Your task to perform on an android device: turn off picture-in-picture Image 0: 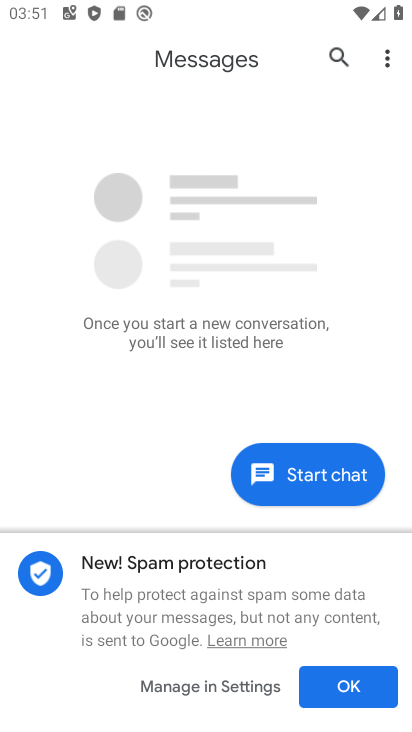
Step 0: press home button
Your task to perform on an android device: turn off picture-in-picture Image 1: 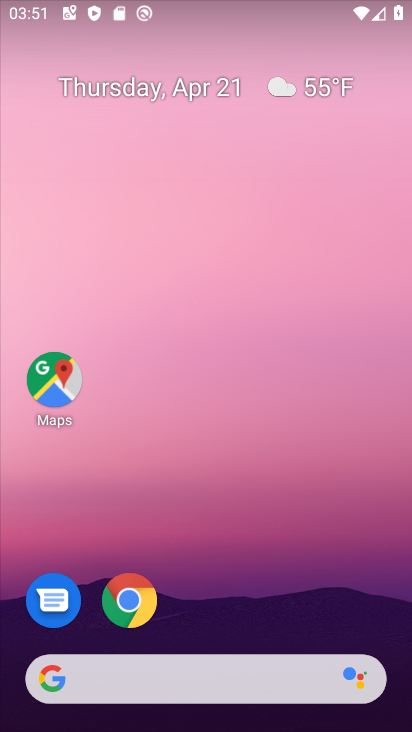
Step 1: click (128, 600)
Your task to perform on an android device: turn off picture-in-picture Image 2: 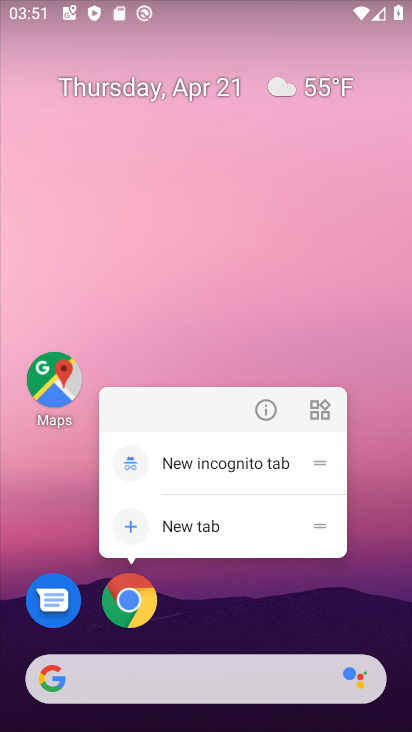
Step 2: click (264, 410)
Your task to perform on an android device: turn off picture-in-picture Image 3: 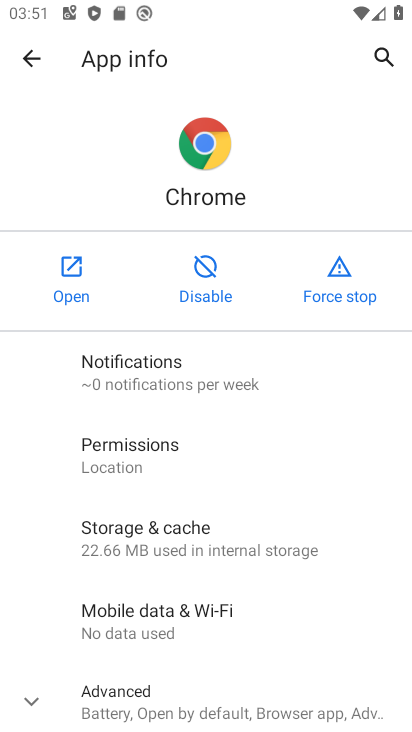
Step 3: drag from (232, 567) to (224, 405)
Your task to perform on an android device: turn off picture-in-picture Image 4: 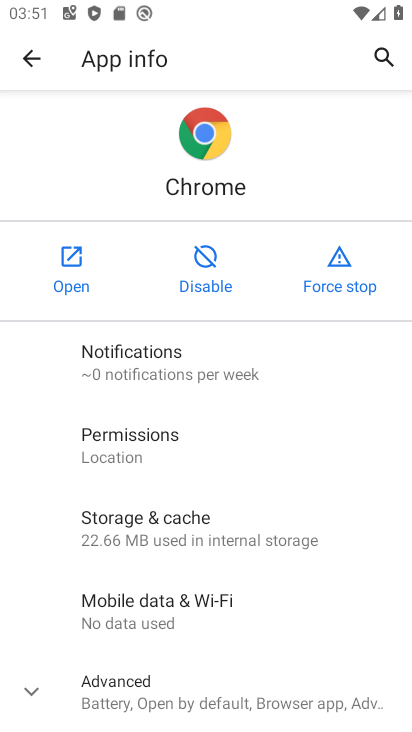
Step 4: click (74, 684)
Your task to perform on an android device: turn off picture-in-picture Image 5: 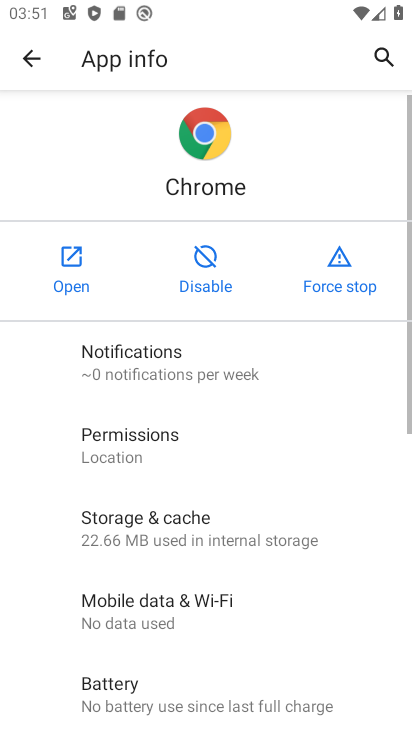
Step 5: drag from (152, 664) to (163, 499)
Your task to perform on an android device: turn off picture-in-picture Image 6: 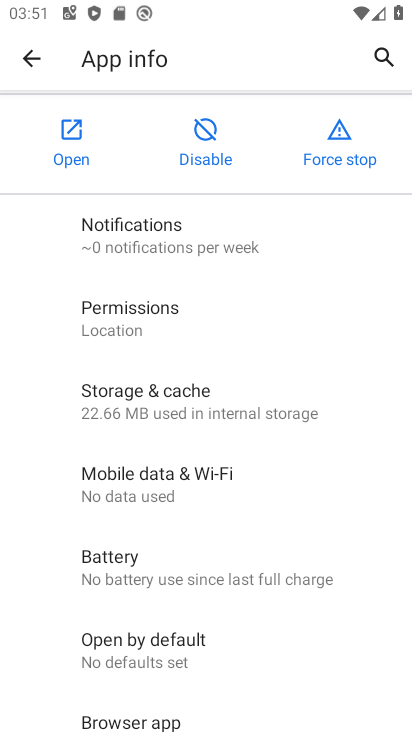
Step 6: drag from (216, 664) to (212, 479)
Your task to perform on an android device: turn off picture-in-picture Image 7: 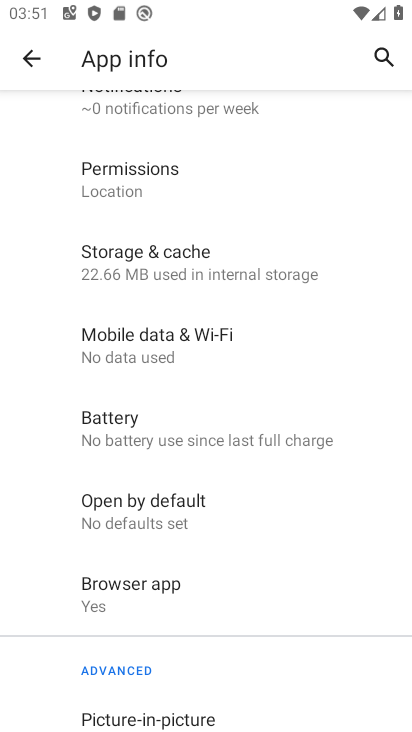
Step 7: drag from (199, 661) to (246, 511)
Your task to perform on an android device: turn off picture-in-picture Image 8: 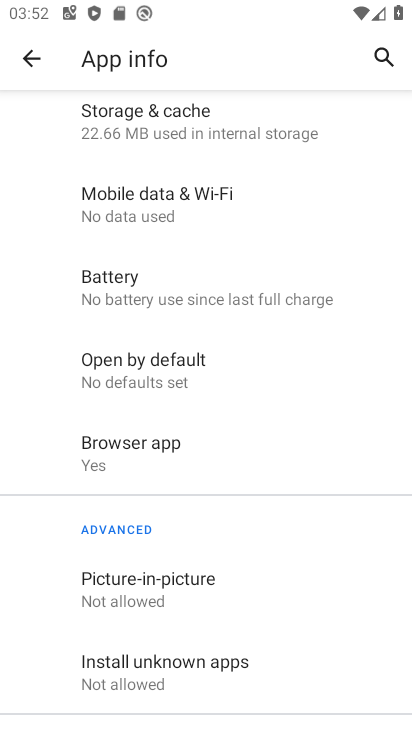
Step 8: click (225, 588)
Your task to perform on an android device: turn off picture-in-picture Image 9: 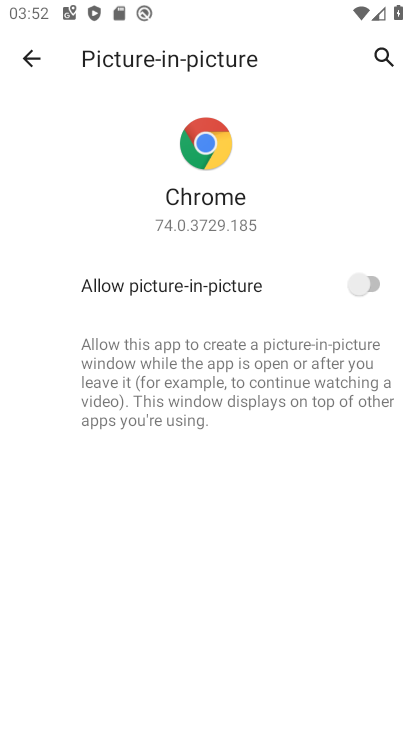
Step 9: task complete